Your task to perform on an android device: turn off airplane mode Image 0: 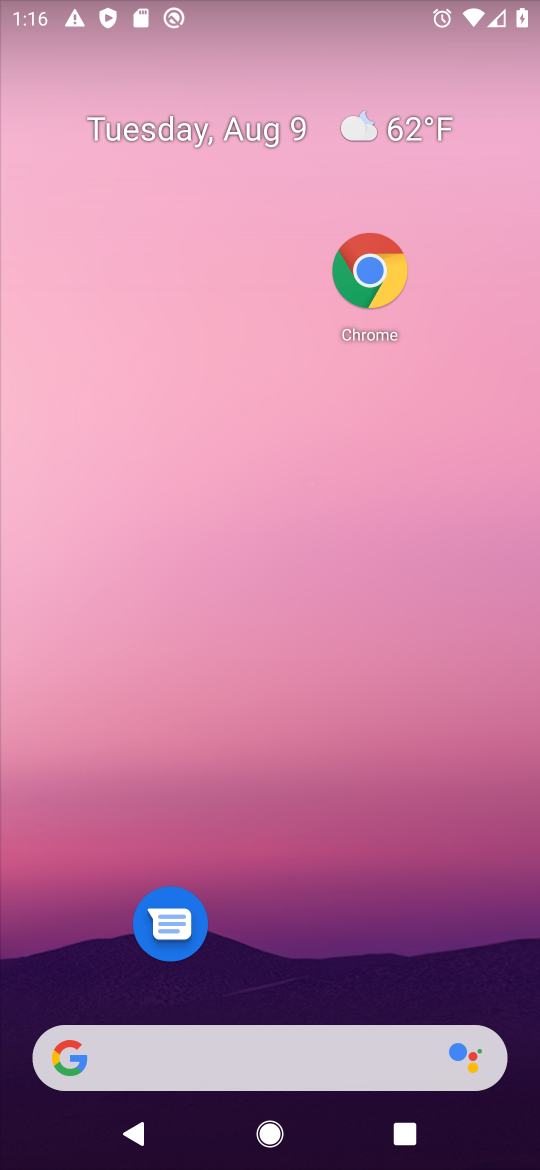
Step 0: drag from (301, 977) to (272, 277)
Your task to perform on an android device: turn off airplane mode Image 1: 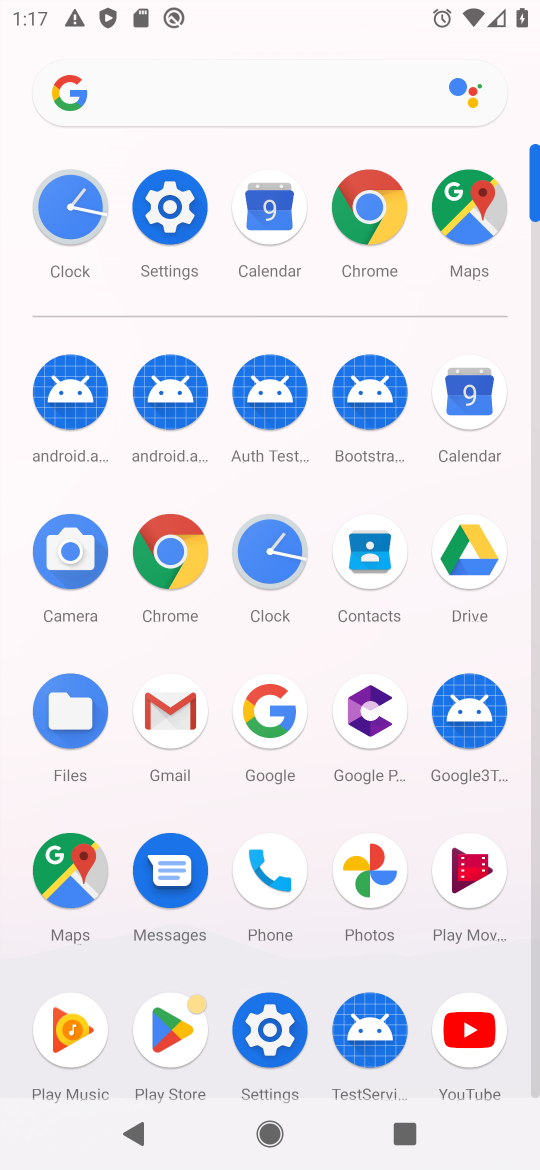
Step 1: click (151, 291)
Your task to perform on an android device: turn off airplane mode Image 2: 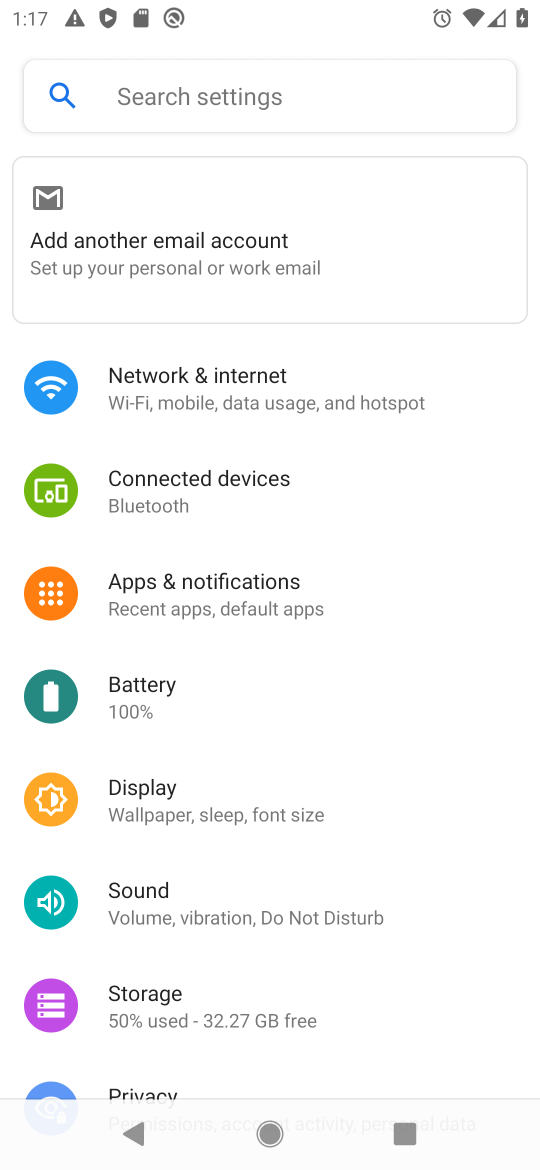
Step 2: click (178, 372)
Your task to perform on an android device: turn off airplane mode Image 3: 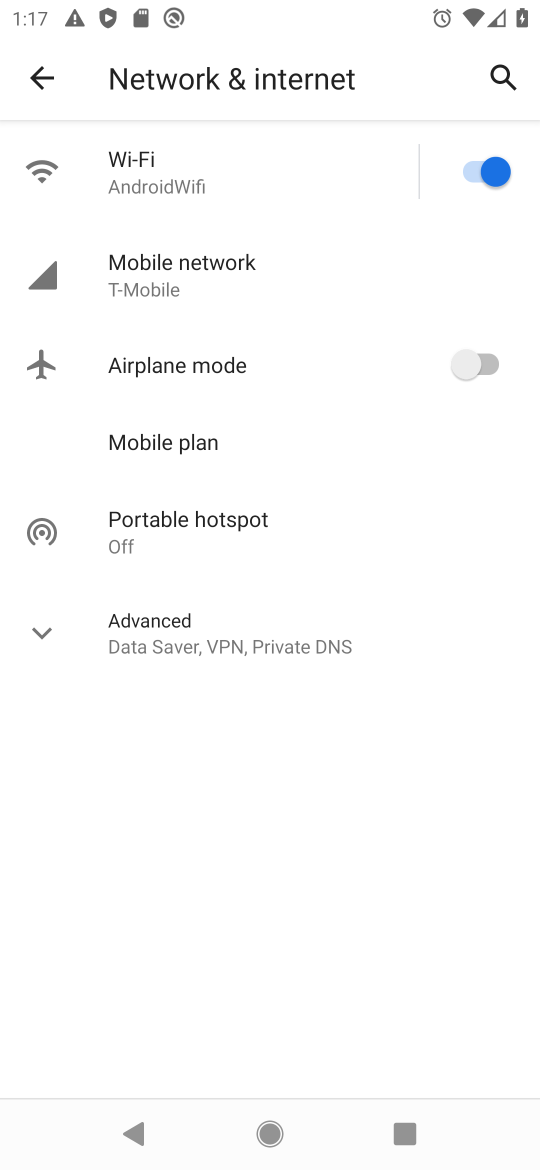
Step 3: click (474, 364)
Your task to perform on an android device: turn off airplane mode Image 4: 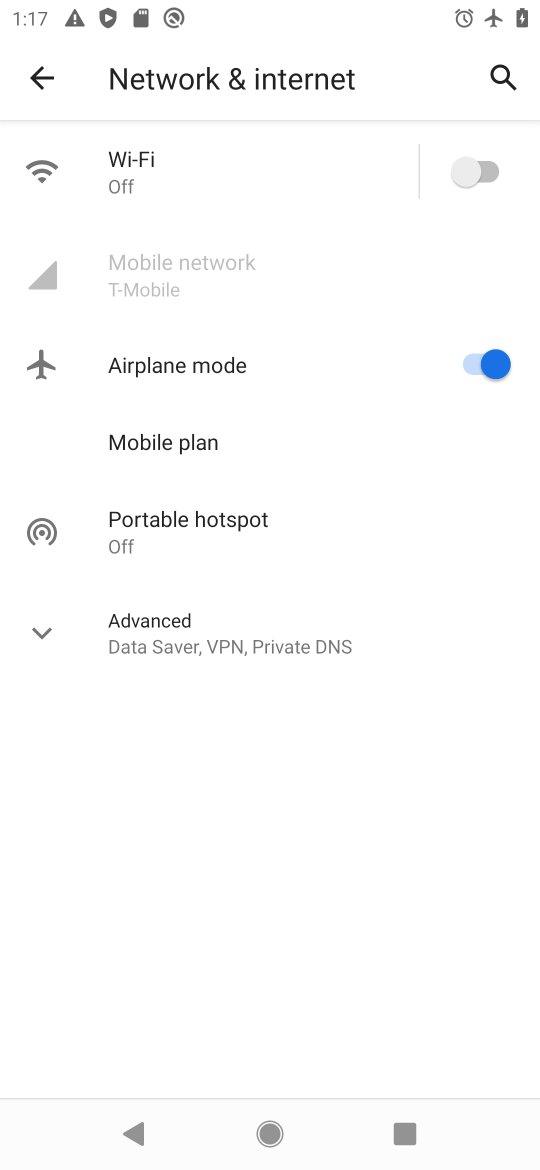
Step 4: click (462, 175)
Your task to perform on an android device: turn off airplane mode Image 5: 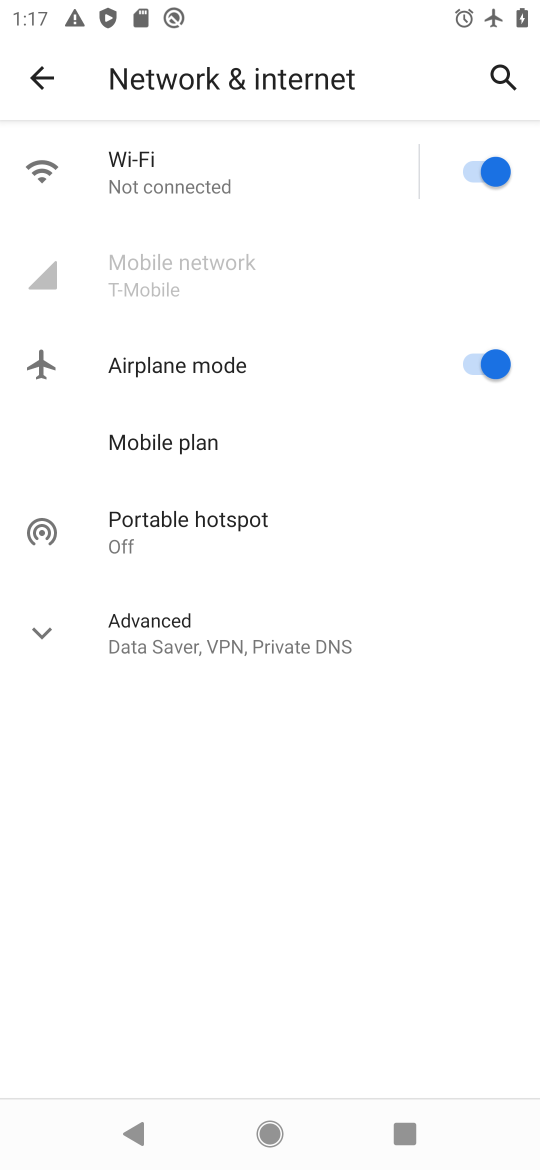
Step 5: task complete